Your task to perform on an android device: What is the news today? Image 0: 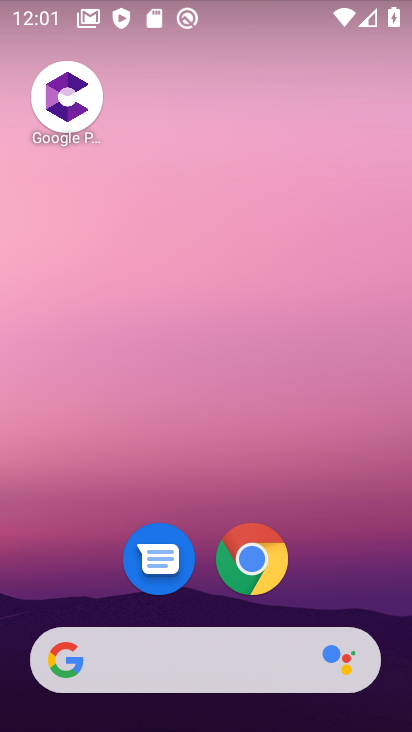
Step 0: drag from (318, 616) to (316, 41)
Your task to perform on an android device: What is the news today? Image 1: 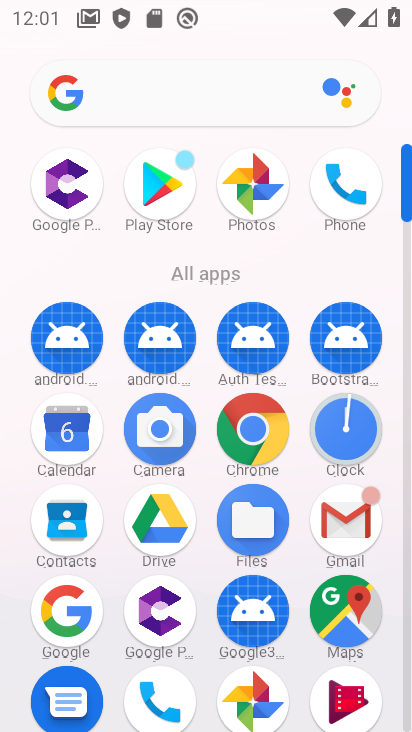
Step 1: click (173, 90)
Your task to perform on an android device: What is the news today? Image 2: 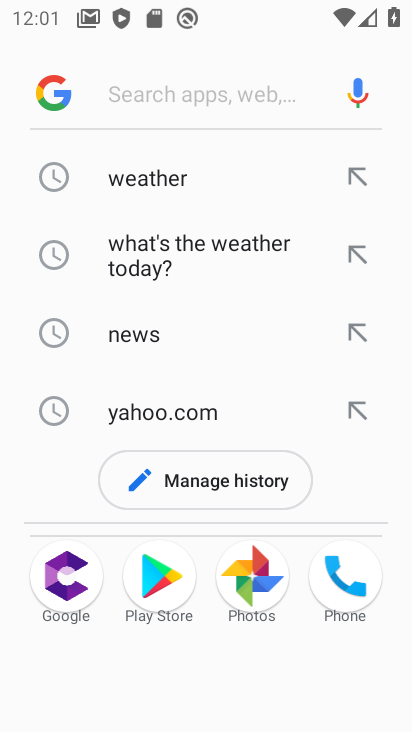
Step 2: type "what is the news today "
Your task to perform on an android device: What is the news today? Image 3: 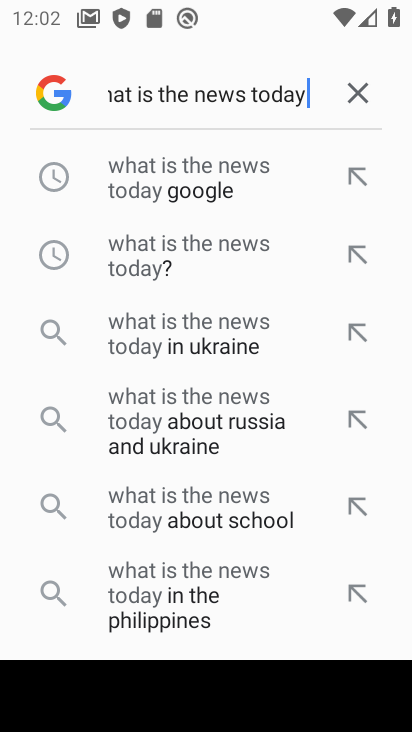
Step 3: click (200, 261)
Your task to perform on an android device: What is the news today? Image 4: 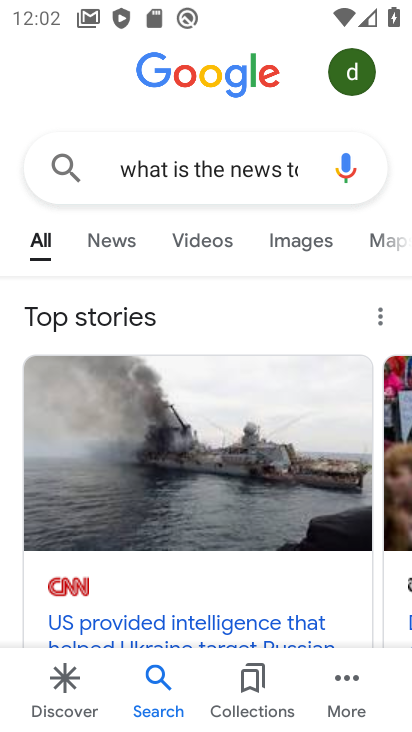
Step 4: click (120, 234)
Your task to perform on an android device: What is the news today? Image 5: 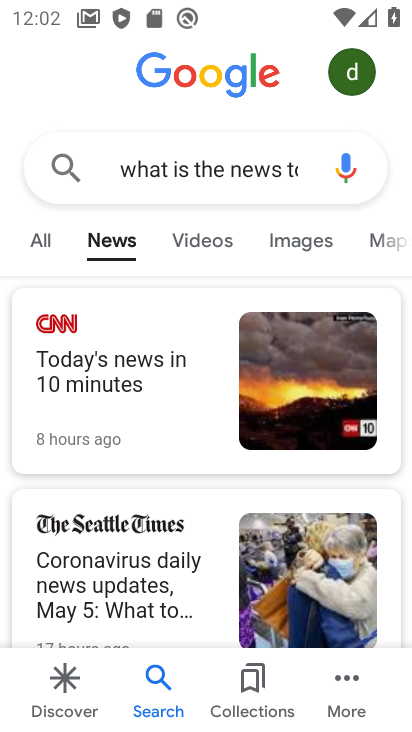
Step 5: task complete